Your task to perform on an android device: toggle airplane mode Image 0: 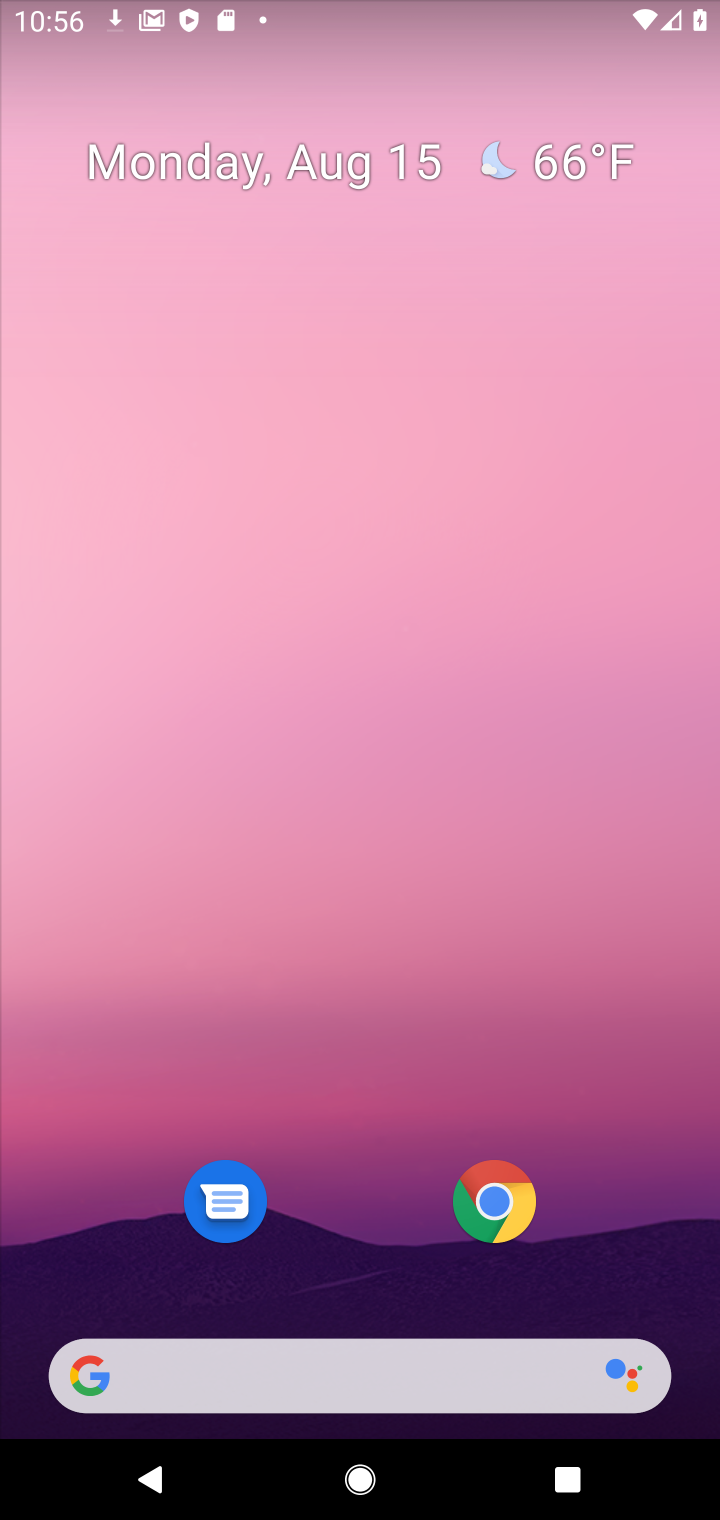
Step 0: press home button
Your task to perform on an android device: toggle airplane mode Image 1: 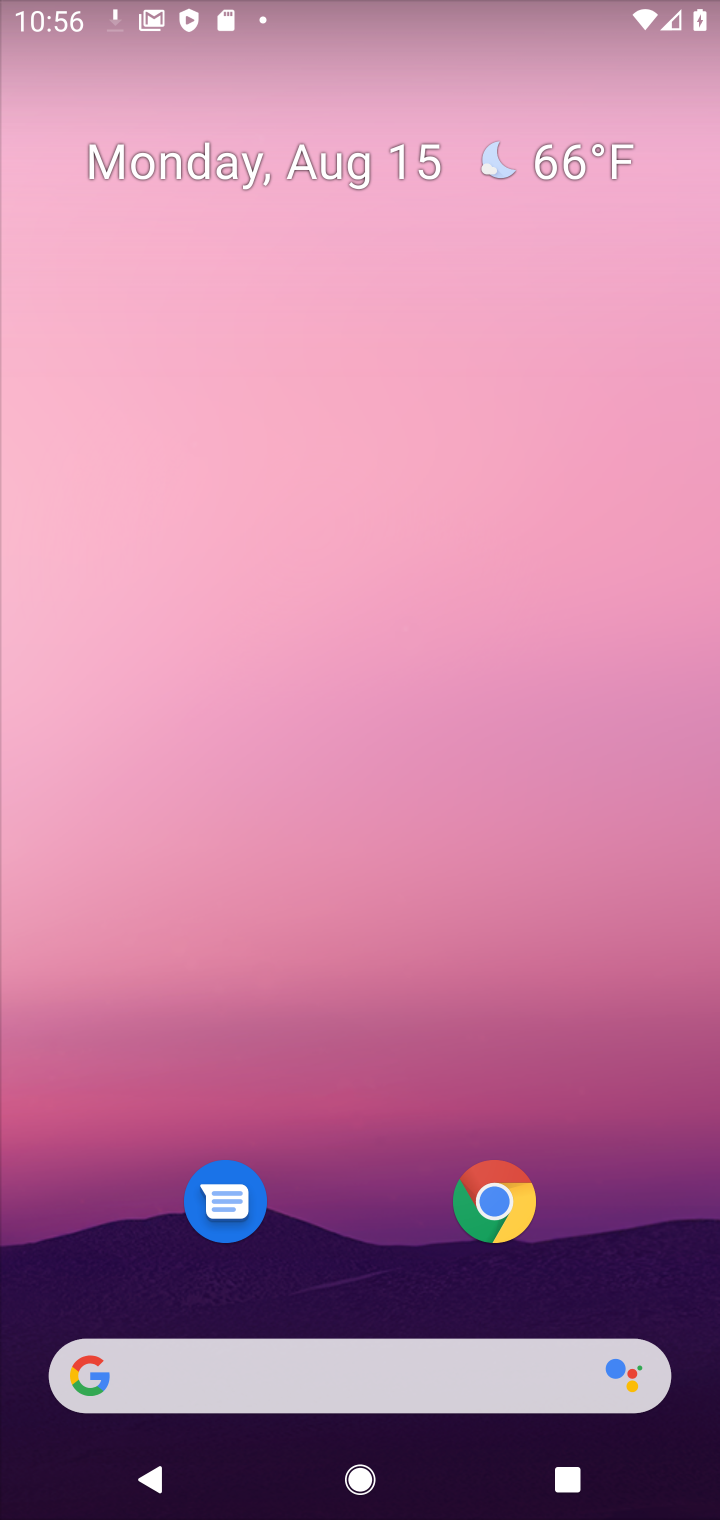
Step 1: drag from (299, 1060) to (202, 382)
Your task to perform on an android device: toggle airplane mode Image 2: 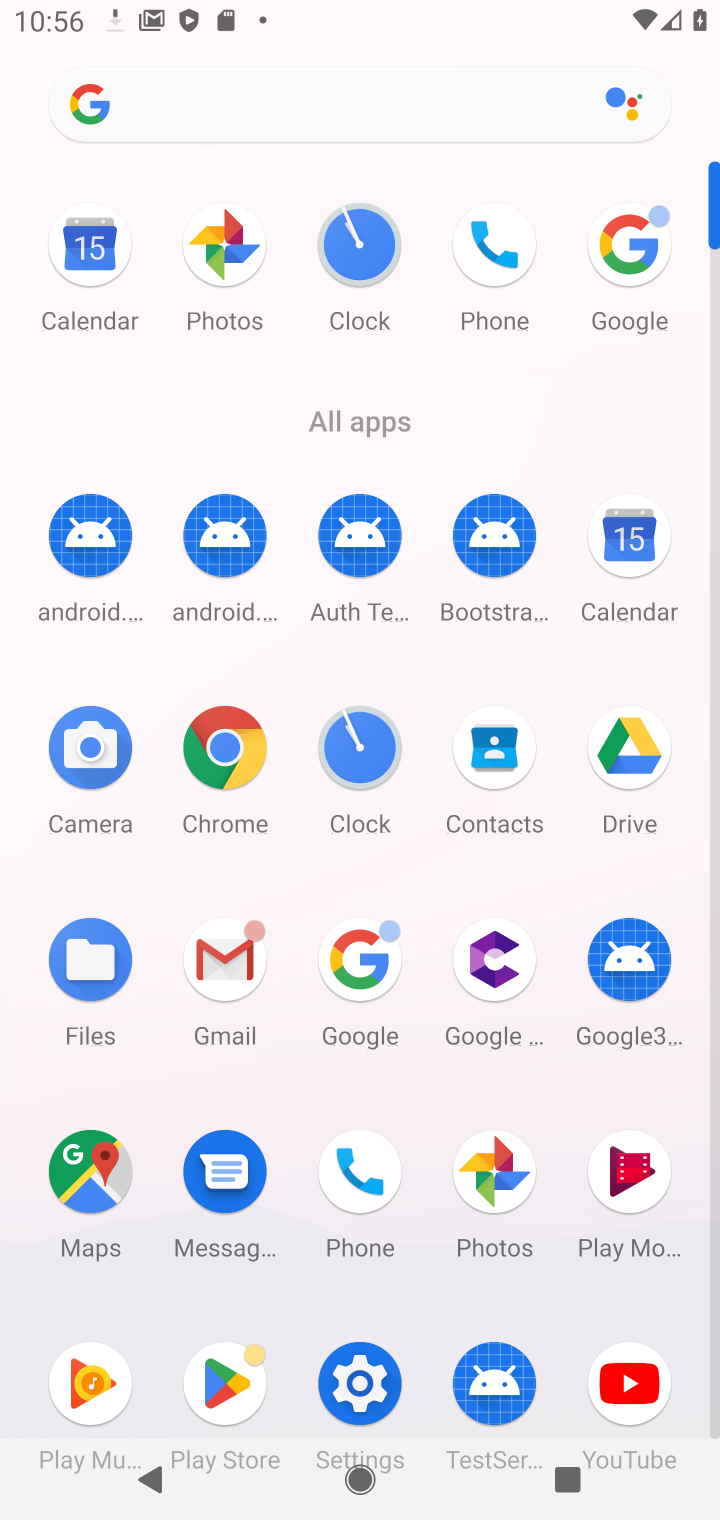
Step 2: click (356, 1385)
Your task to perform on an android device: toggle airplane mode Image 3: 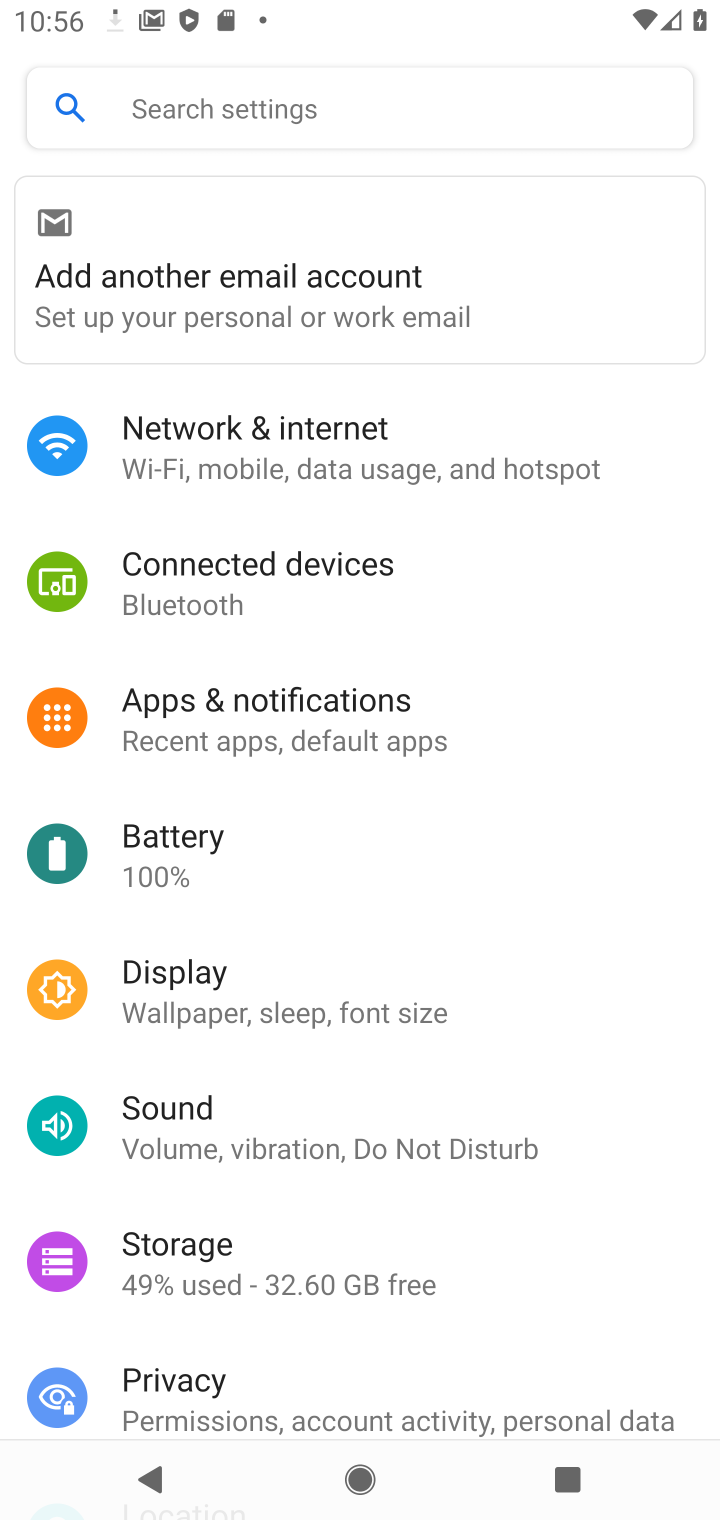
Step 3: click (160, 445)
Your task to perform on an android device: toggle airplane mode Image 4: 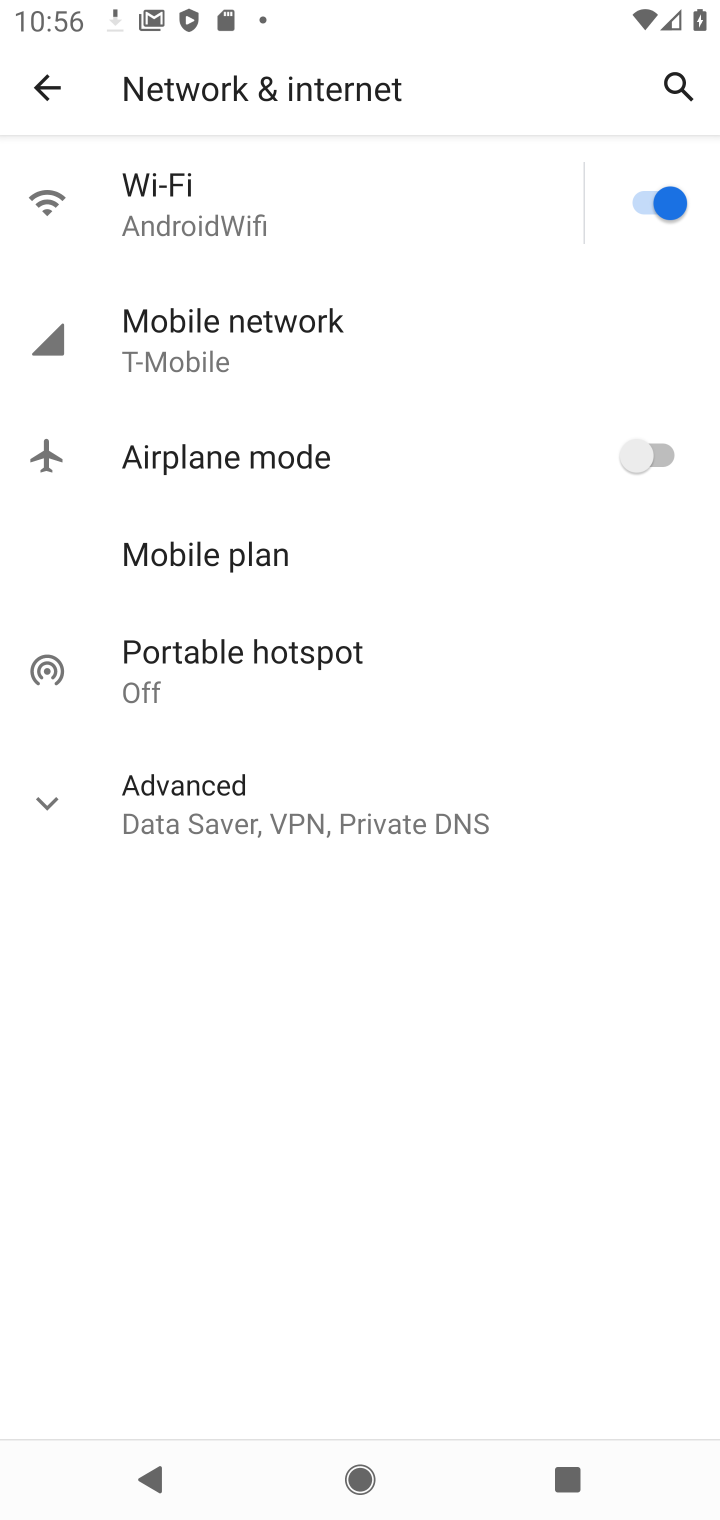
Step 4: click (651, 459)
Your task to perform on an android device: toggle airplane mode Image 5: 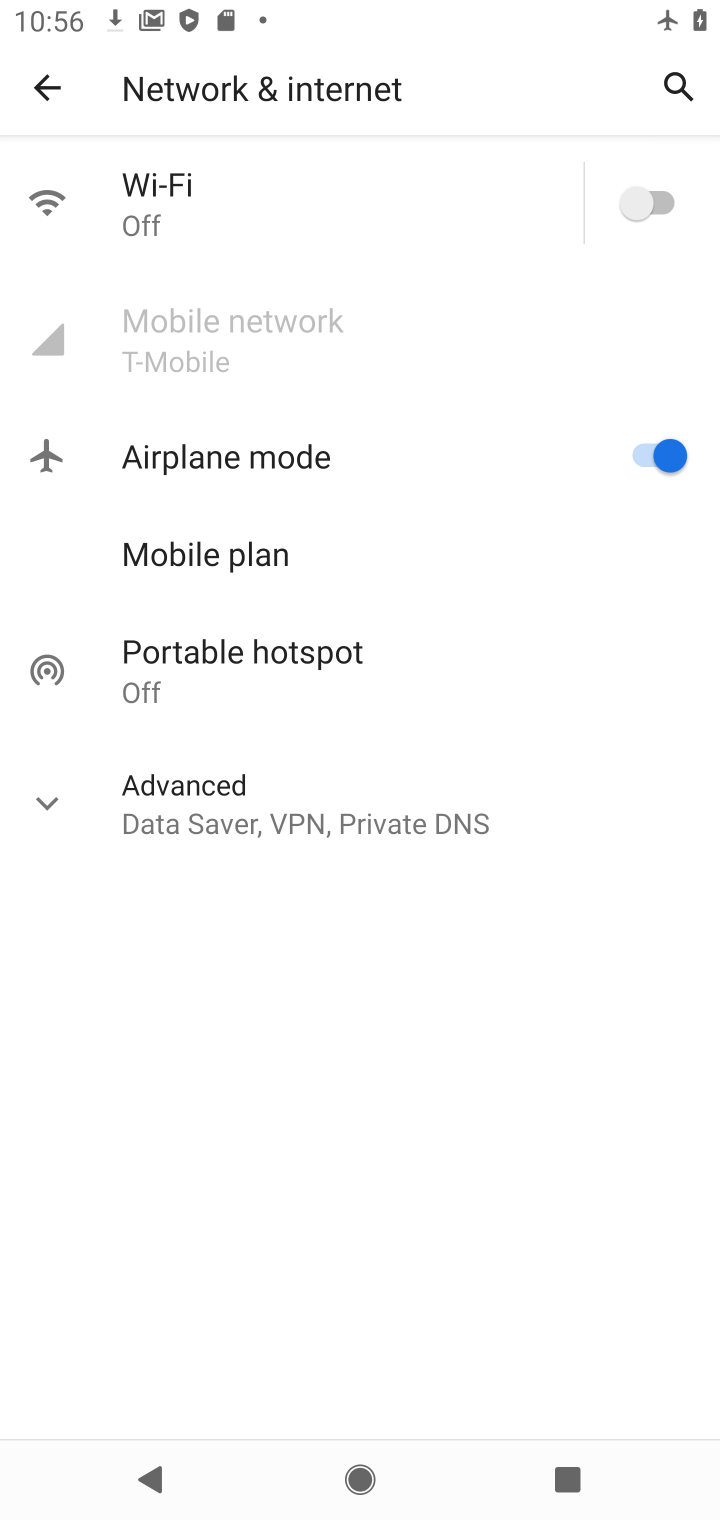
Step 5: task complete